Your task to perform on an android device: Open CNN.com Image 0: 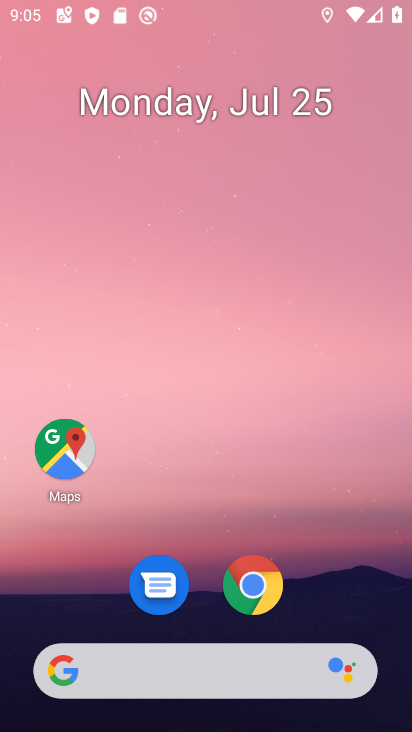
Step 0: press home button
Your task to perform on an android device: Open CNN.com Image 1: 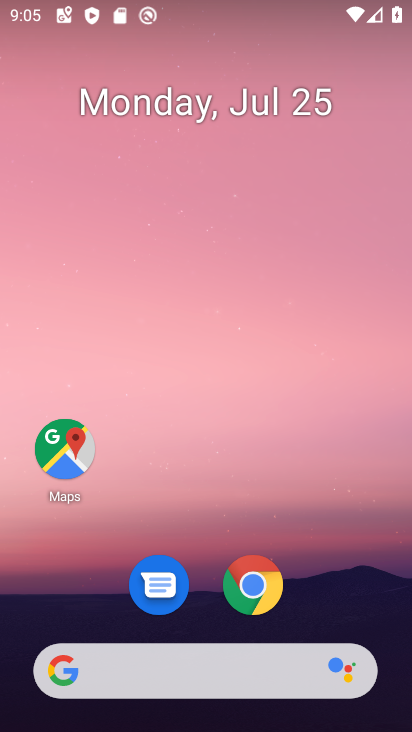
Step 1: click (256, 597)
Your task to perform on an android device: Open CNN.com Image 2: 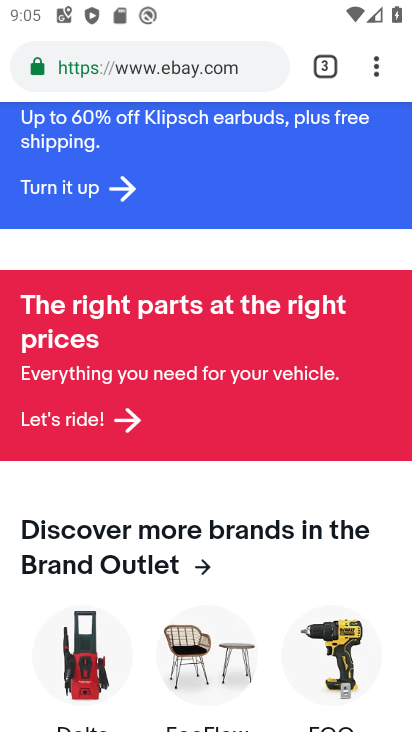
Step 2: drag from (374, 63) to (156, 132)
Your task to perform on an android device: Open CNN.com Image 3: 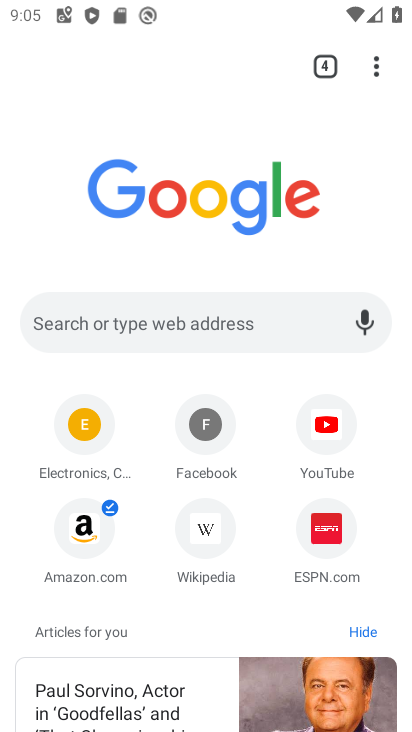
Step 3: click (117, 320)
Your task to perform on an android device: Open CNN.com Image 4: 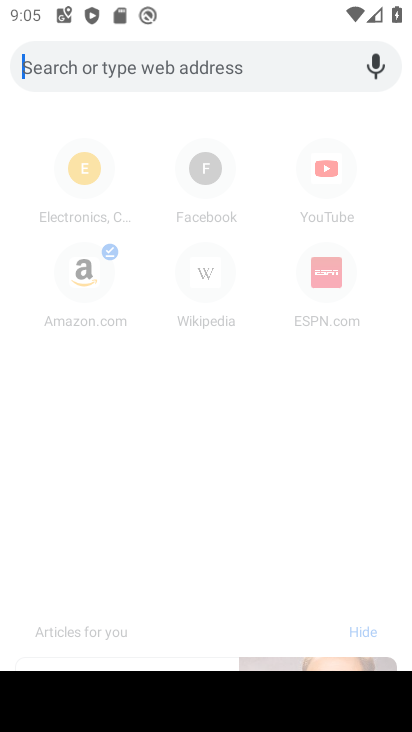
Step 4: type "cnn.com"
Your task to perform on an android device: Open CNN.com Image 5: 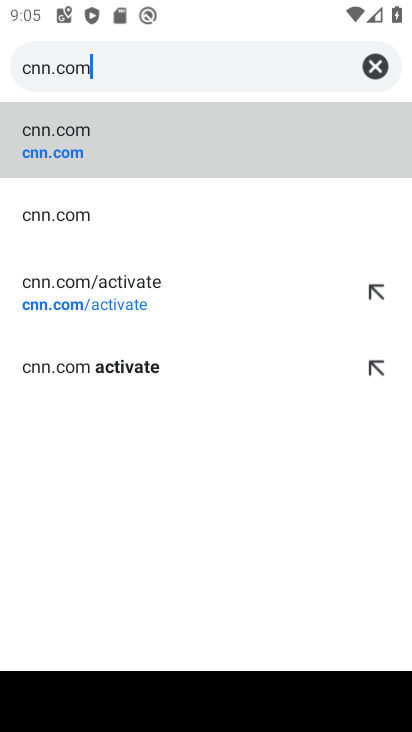
Step 5: click (73, 153)
Your task to perform on an android device: Open CNN.com Image 6: 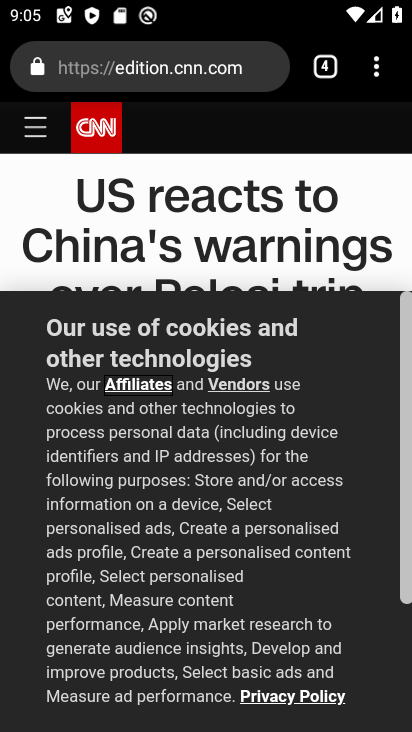
Step 6: drag from (261, 649) to (406, 222)
Your task to perform on an android device: Open CNN.com Image 7: 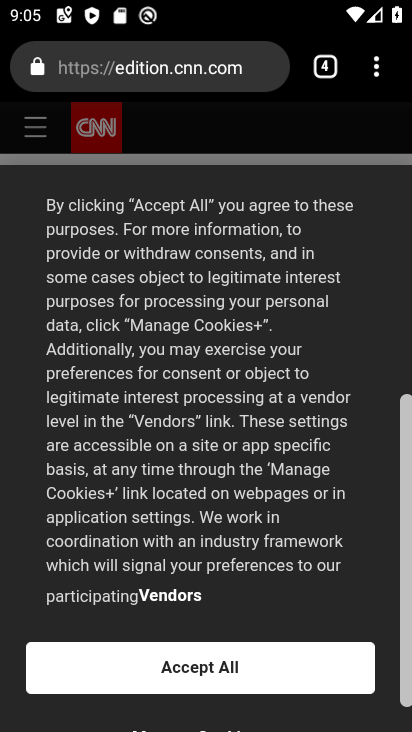
Step 7: click (198, 663)
Your task to perform on an android device: Open CNN.com Image 8: 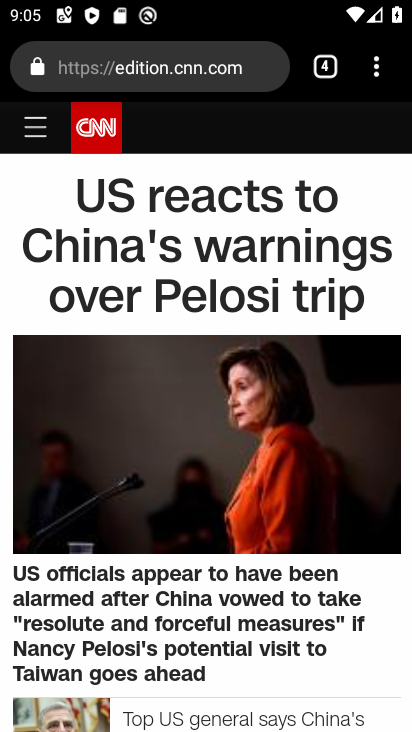
Step 8: task complete